Your task to perform on an android device: turn notification dots off Image 0: 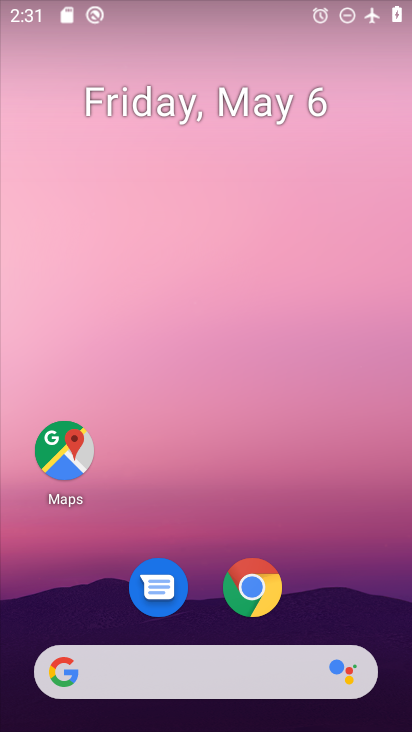
Step 0: drag from (329, 571) to (340, 61)
Your task to perform on an android device: turn notification dots off Image 1: 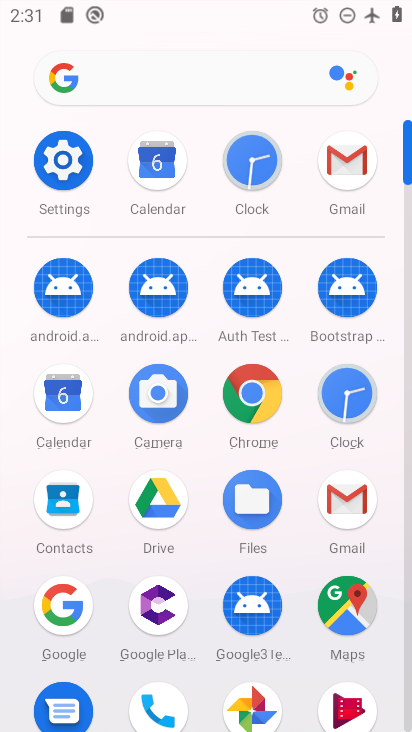
Step 1: click (68, 163)
Your task to perform on an android device: turn notification dots off Image 2: 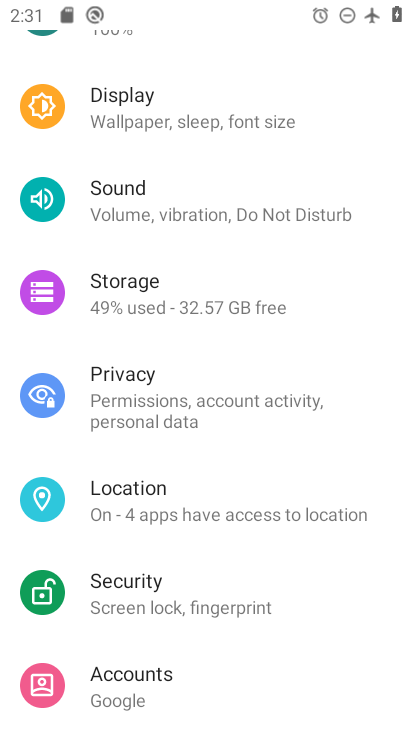
Step 2: drag from (208, 201) to (219, 597)
Your task to perform on an android device: turn notification dots off Image 3: 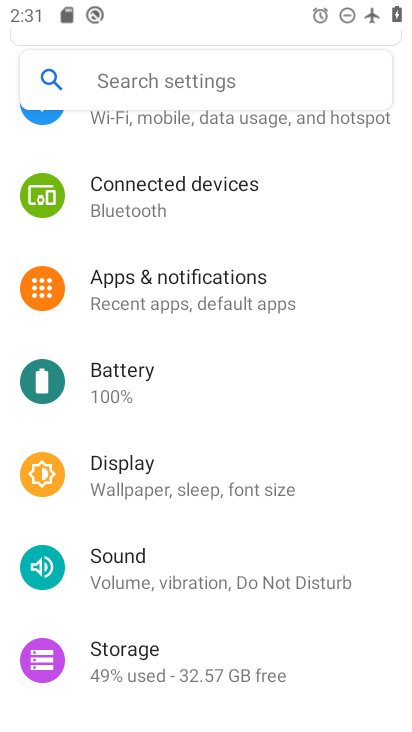
Step 3: click (211, 282)
Your task to perform on an android device: turn notification dots off Image 4: 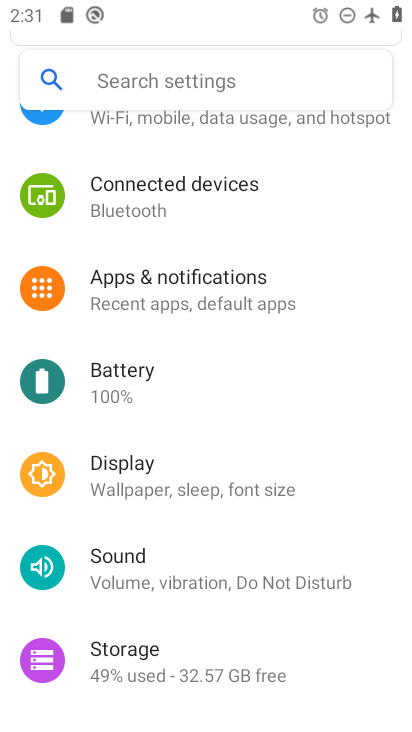
Step 4: click (233, 293)
Your task to perform on an android device: turn notification dots off Image 5: 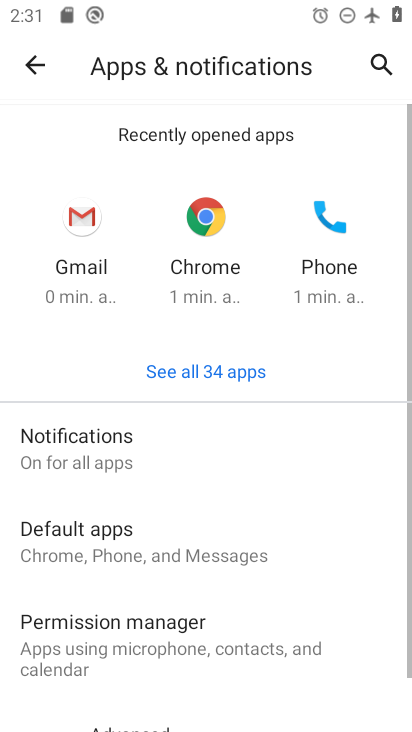
Step 5: click (110, 445)
Your task to perform on an android device: turn notification dots off Image 6: 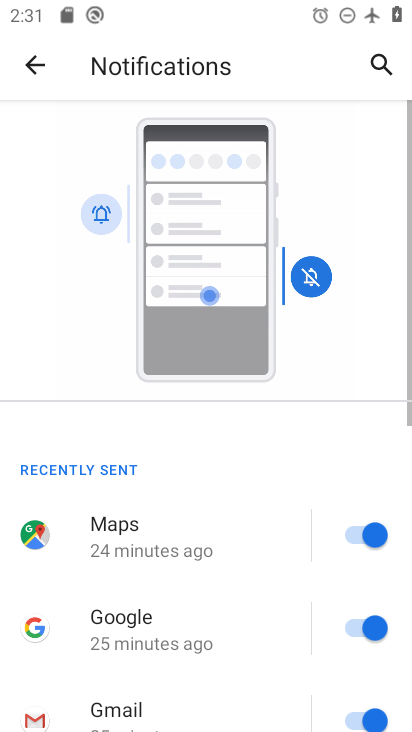
Step 6: drag from (243, 626) to (230, 234)
Your task to perform on an android device: turn notification dots off Image 7: 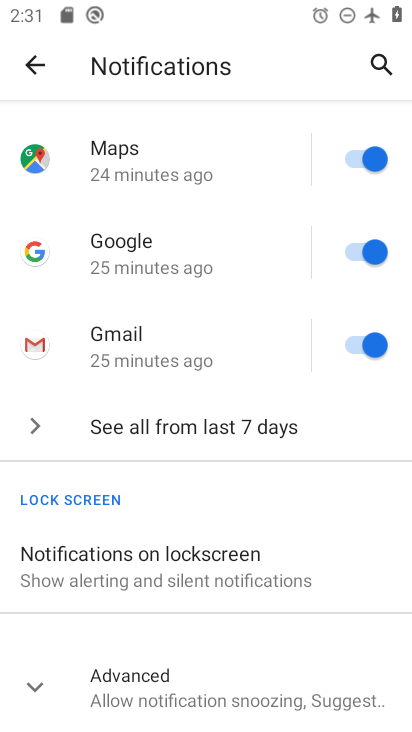
Step 7: click (30, 685)
Your task to perform on an android device: turn notification dots off Image 8: 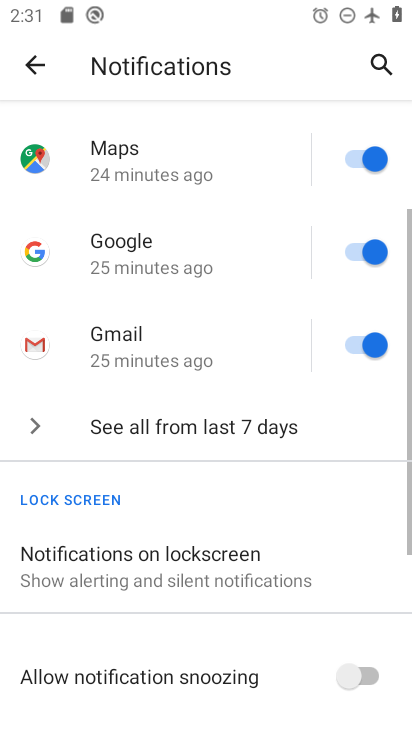
Step 8: drag from (201, 614) to (205, 250)
Your task to perform on an android device: turn notification dots off Image 9: 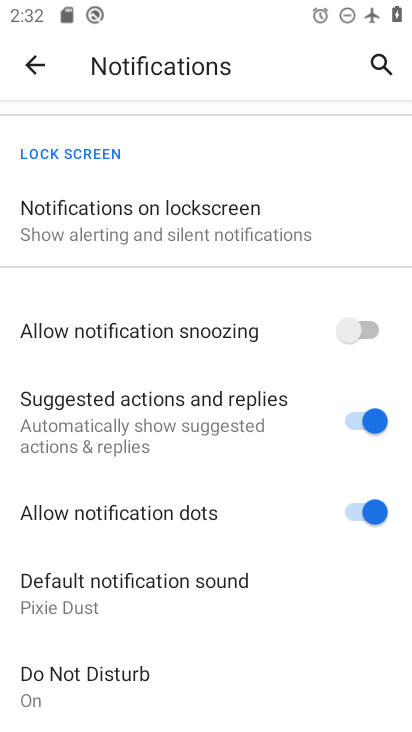
Step 9: click (352, 506)
Your task to perform on an android device: turn notification dots off Image 10: 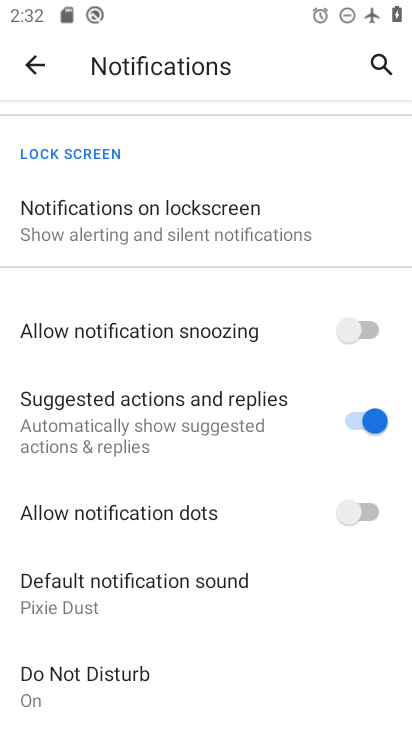
Step 10: task complete